Your task to perform on an android device: Search for flights from Sydney to Zurich Image 0: 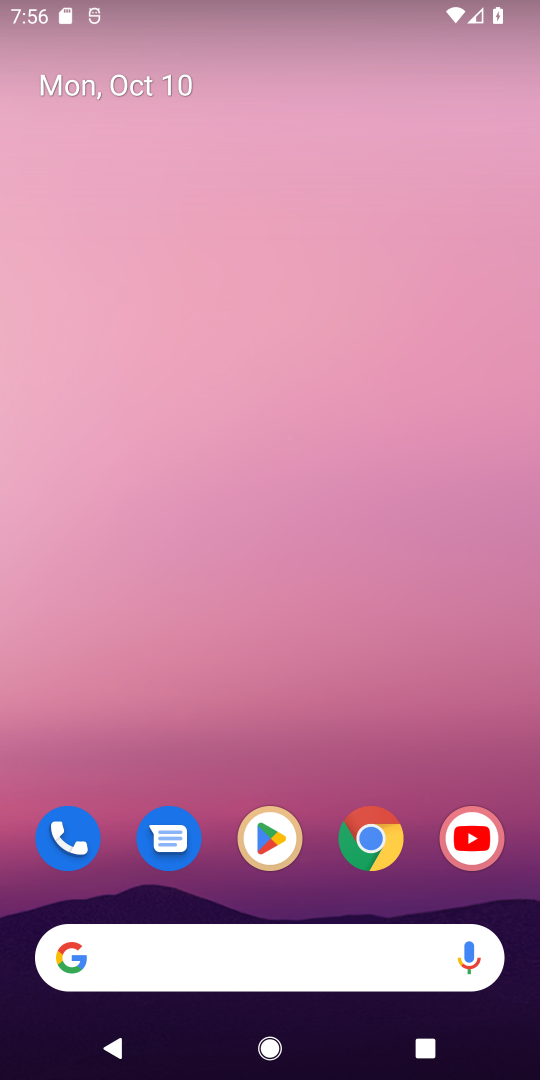
Step 0: click (366, 835)
Your task to perform on an android device: Search for flights from Sydney to Zurich Image 1: 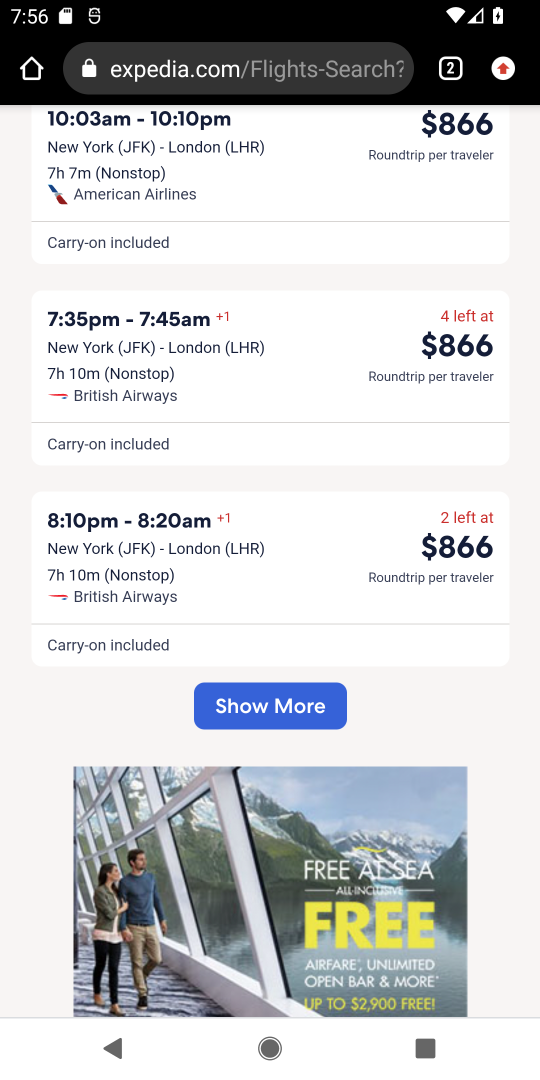
Step 1: click (219, 54)
Your task to perform on an android device: Search for flights from Sydney to Zurich Image 2: 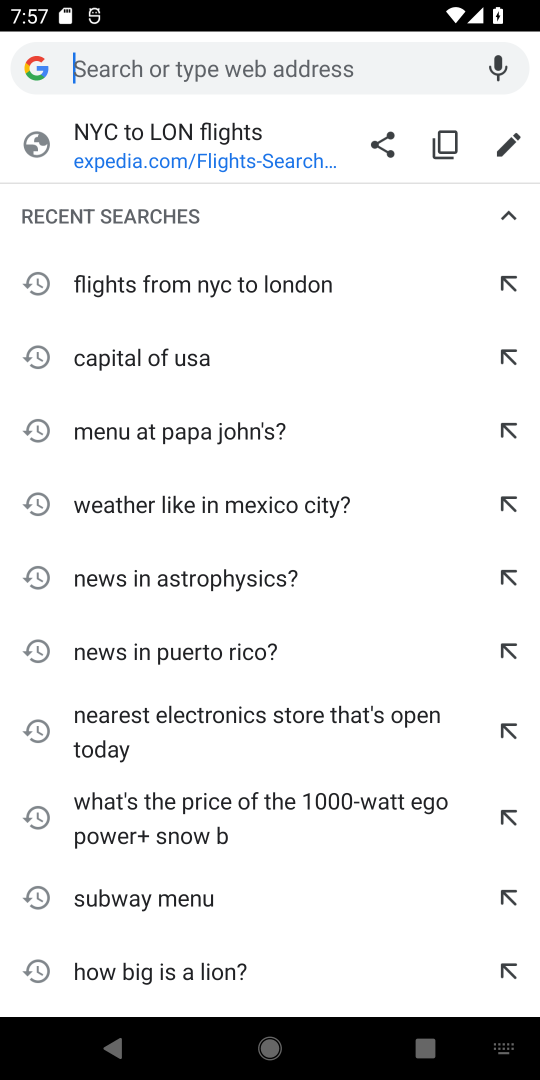
Step 2: type "flights from Sydney to Zurich"
Your task to perform on an android device: Search for flights from Sydney to Zurich Image 3: 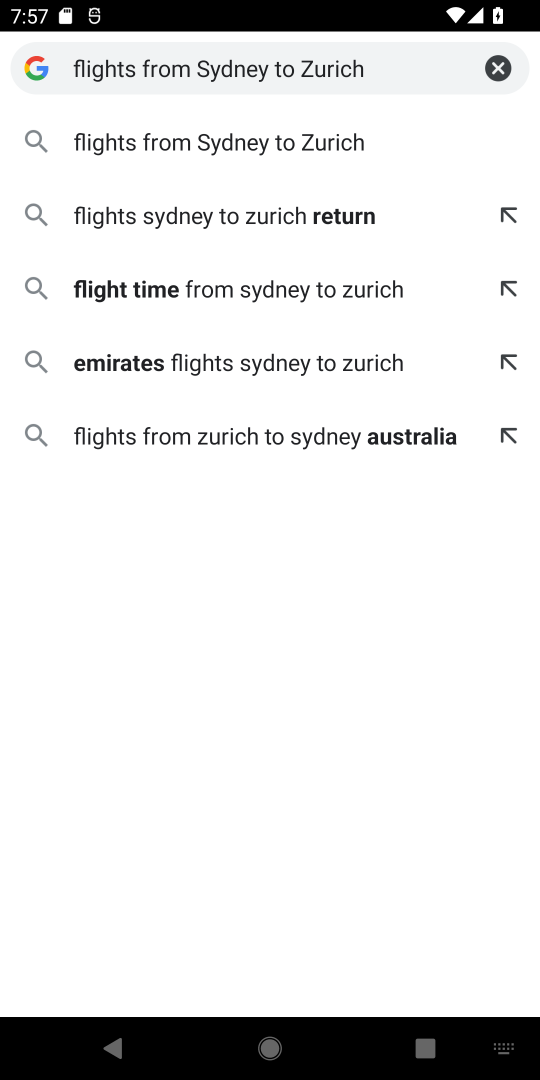
Step 3: click (151, 136)
Your task to perform on an android device: Search for flights from Sydney to Zurich Image 4: 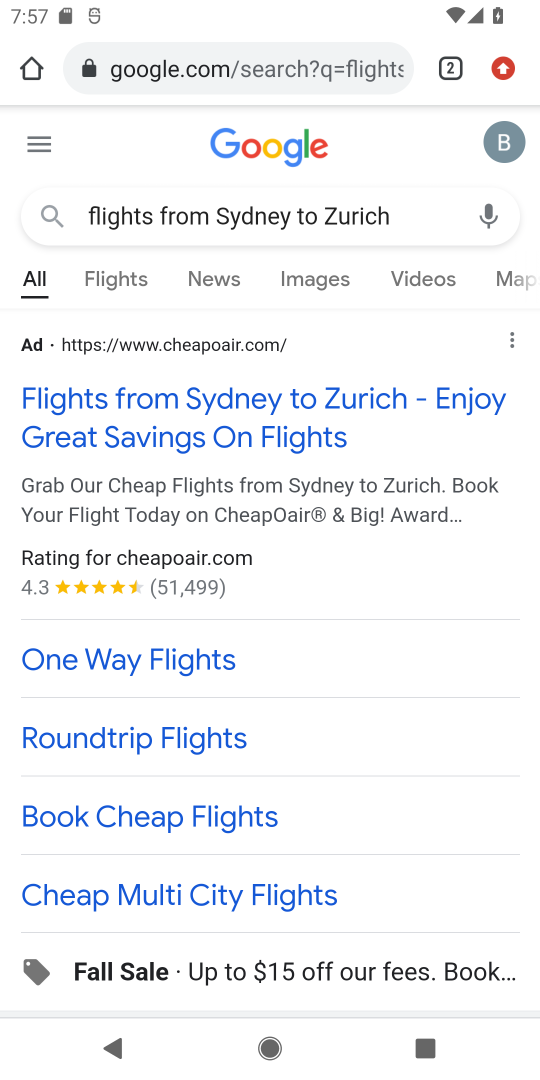
Step 4: click (106, 408)
Your task to perform on an android device: Search for flights from Sydney to Zurich Image 5: 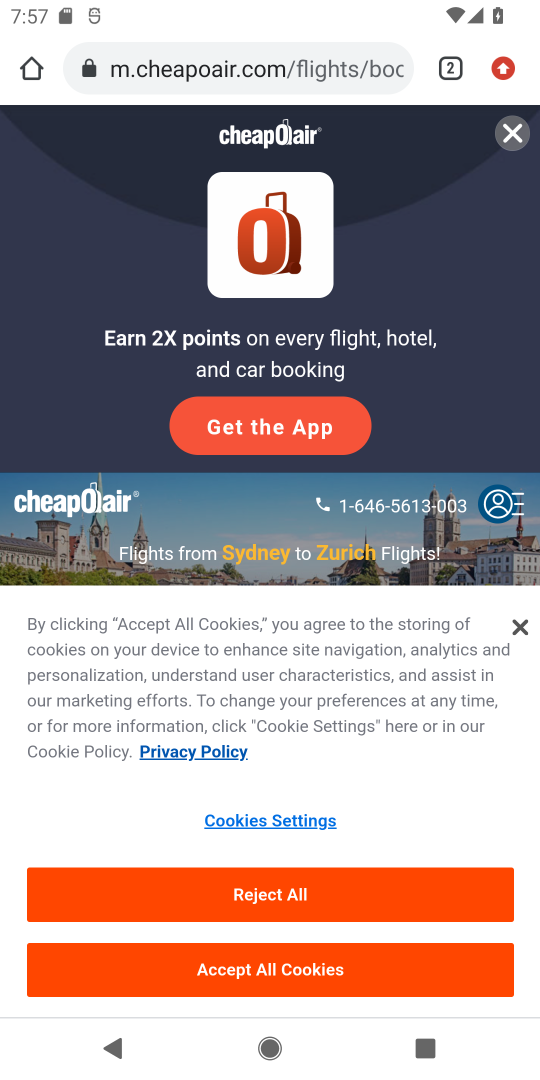
Step 5: click (261, 966)
Your task to perform on an android device: Search for flights from Sydney to Zurich Image 6: 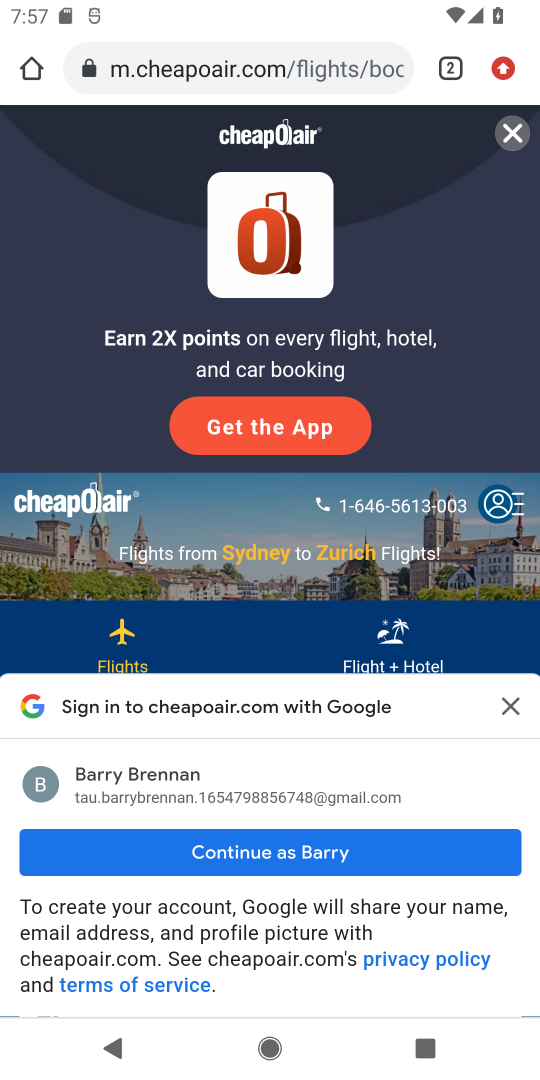
Step 6: click (504, 698)
Your task to perform on an android device: Search for flights from Sydney to Zurich Image 7: 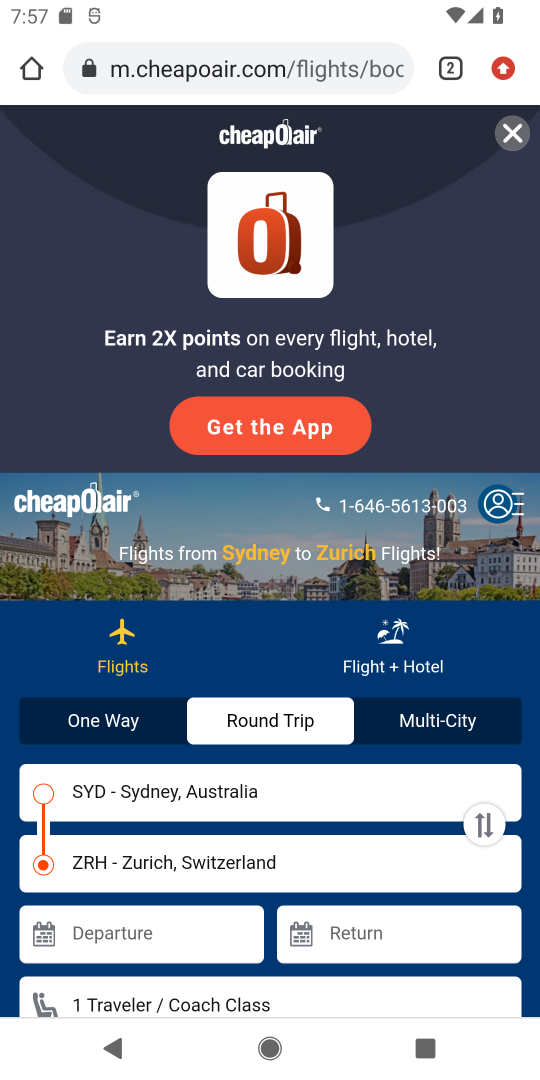
Step 7: drag from (305, 827) to (308, 264)
Your task to perform on an android device: Search for flights from Sydney to Zurich Image 8: 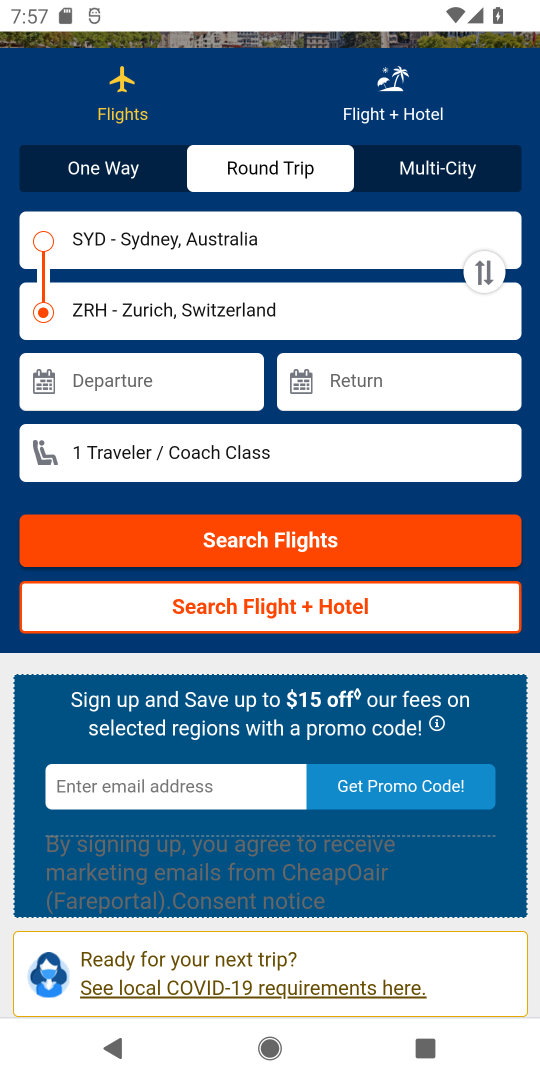
Step 8: click (254, 548)
Your task to perform on an android device: Search for flights from Sydney to Zurich Image 9: 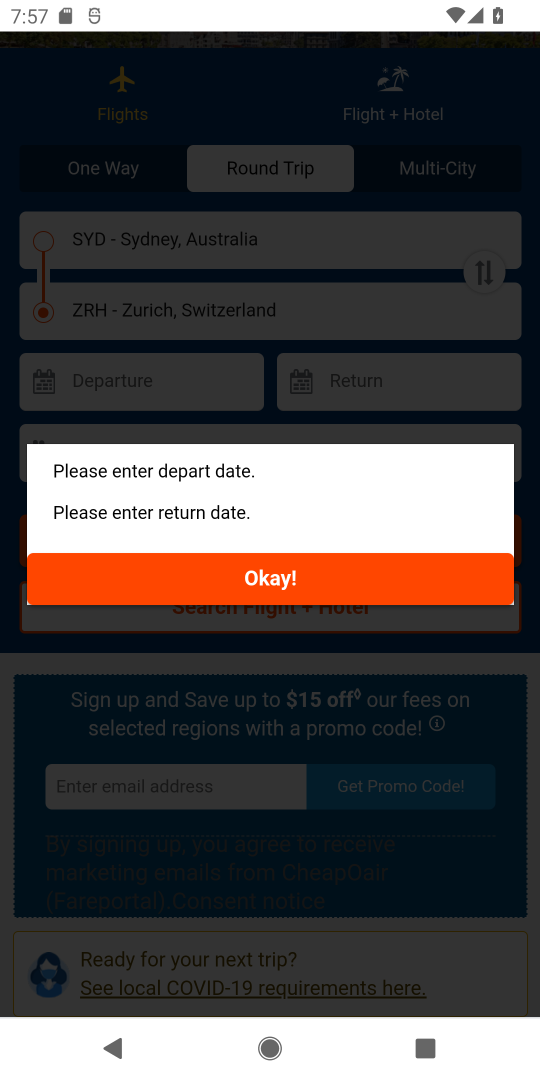
Step 9: click (262, 580)
Your task to perform on an android device: Search for flights from Sydney to Zurich Image 10: 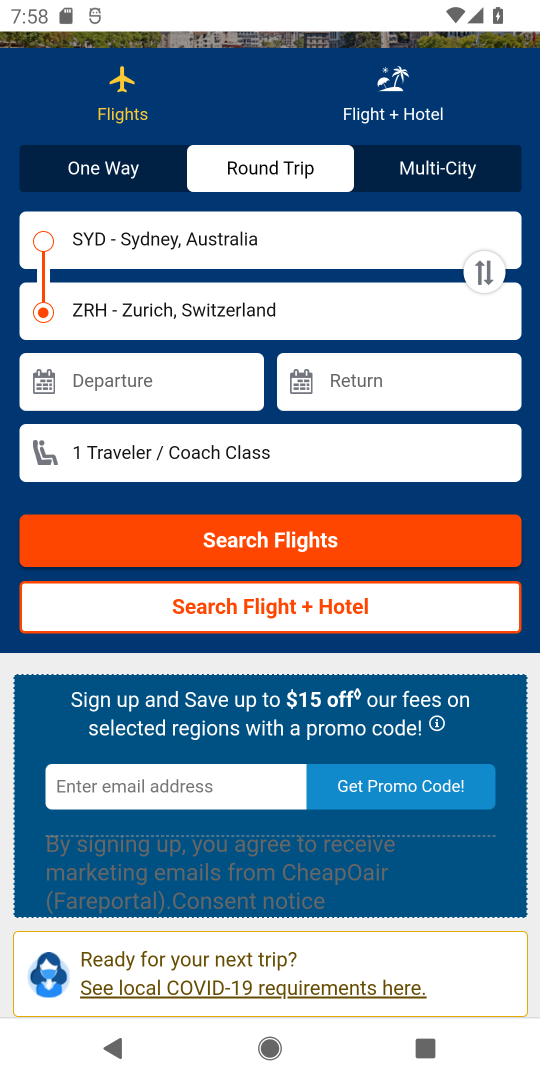
Step 10: click (259, 535)
Your task to perform on an android device: Search for flights from Sydney to Zurich Image 11: 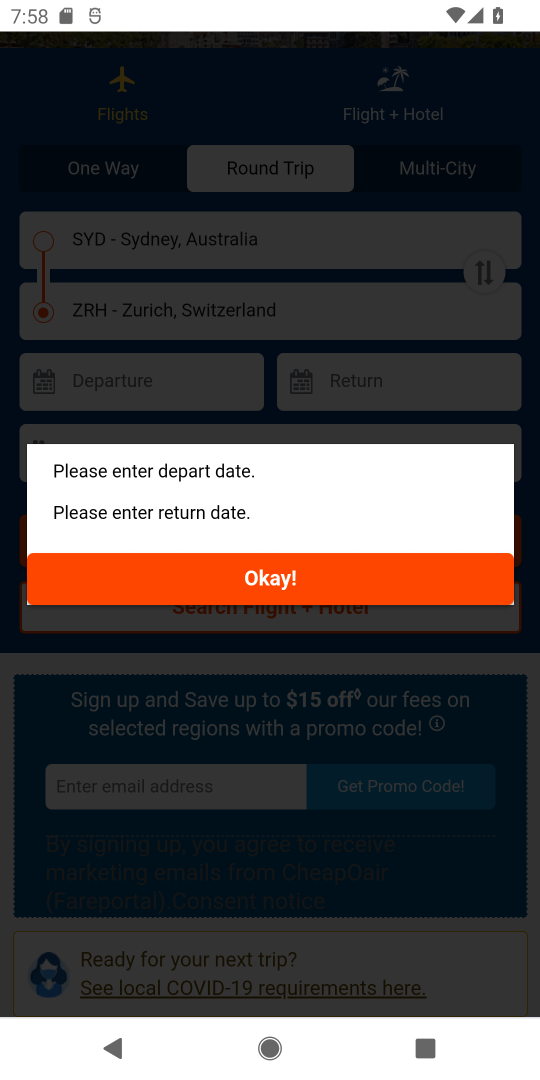
Step 11: click (239, 569)
Your task to perform on an android device: Search for flights from Sydney to Zurich Image 12: 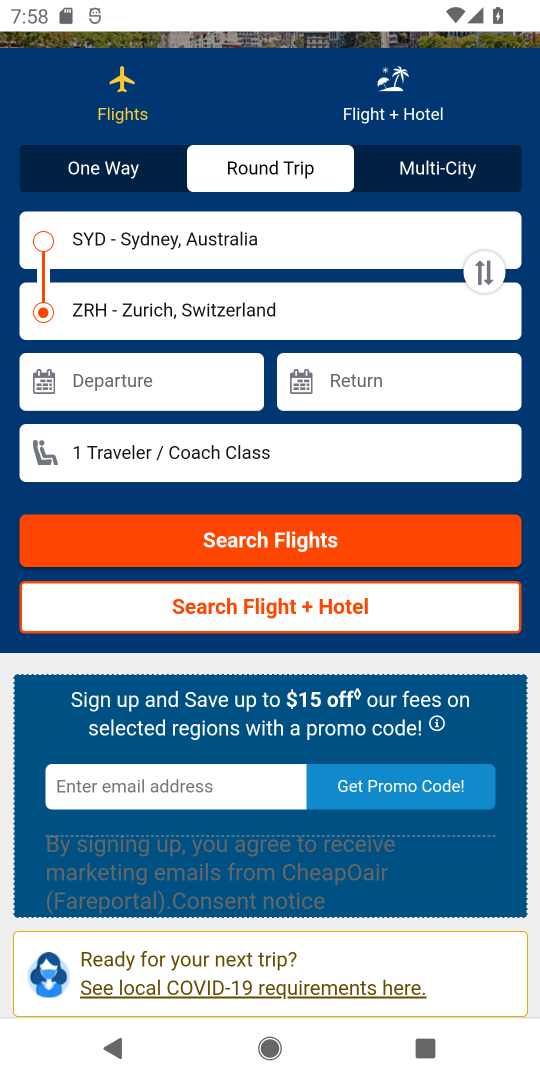
Step 12: click (122, 384)
Your task to perform on an android device: Search for flights from Sydney to Zurich Image 13: 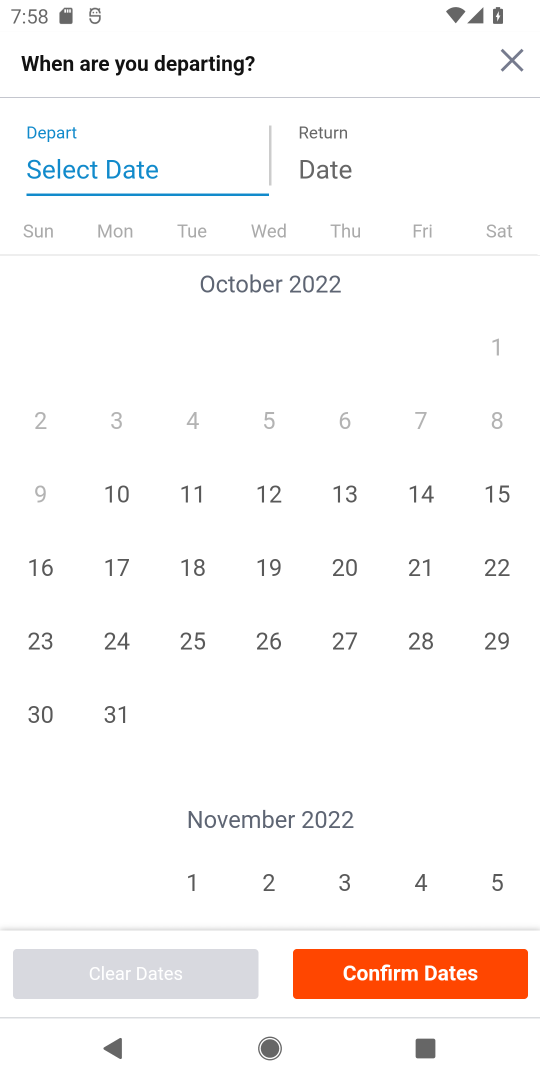
Step 13: click (183, 637)
Your task to perform on an android device: Search for flights from Sydney to Zurich Image 14: 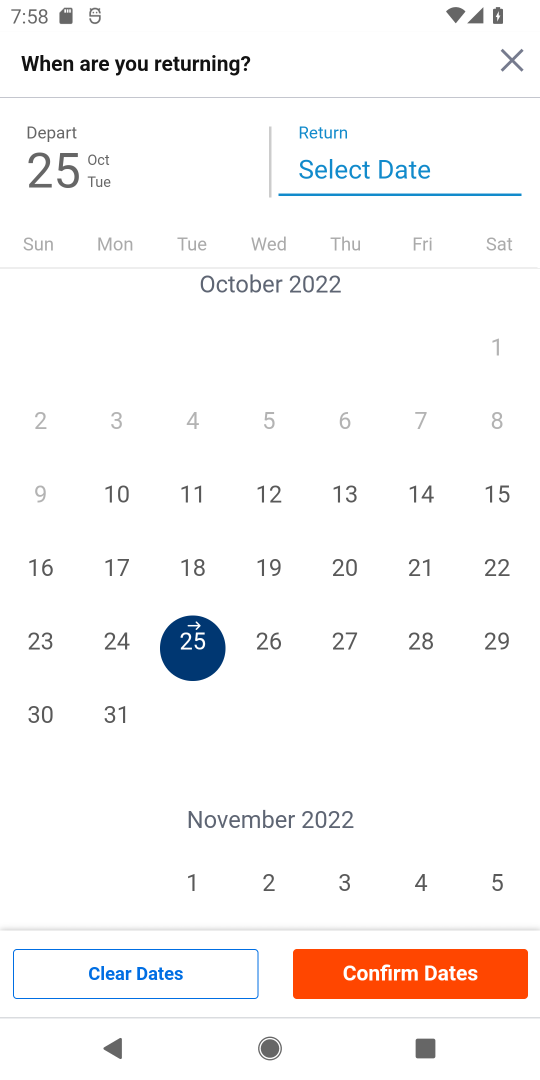
Step 14: click (421, 650)
Your task to perform on an android device: Search for flights from Sydney to Zurich Image 15: 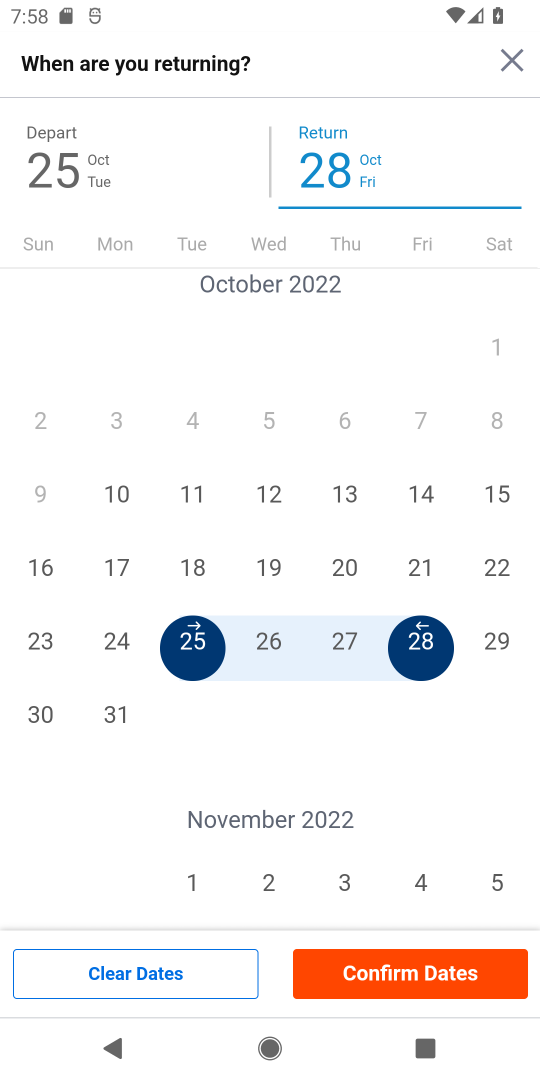
Step 15: click (379, 971)
Your task to perform on an android device: Search for flights from Sydney to Zurich Image 16: 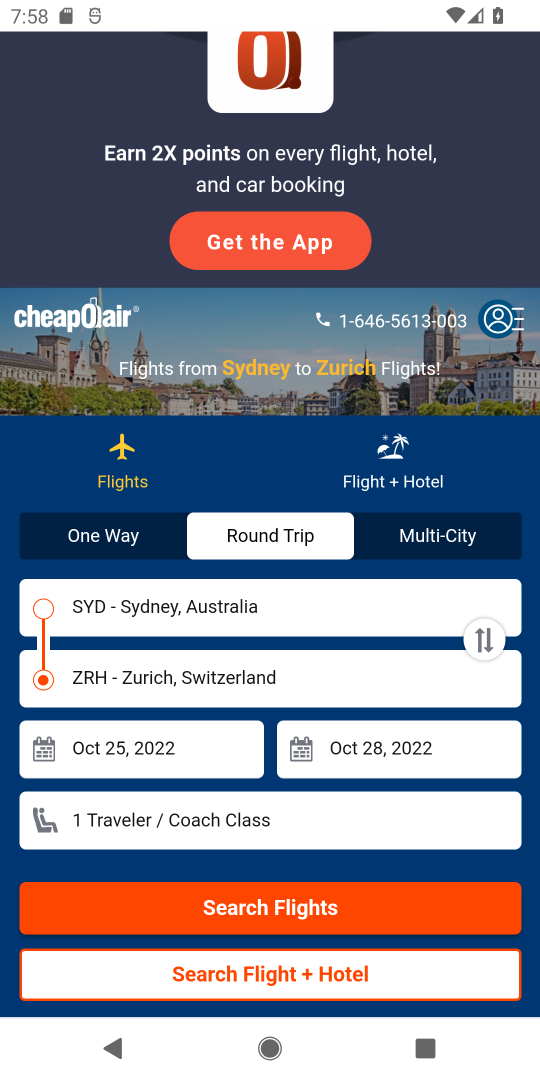
Step 16: click (247, 914)
Your task to perform on an android device: Search for flights from Sydney to Zurich Image 17: 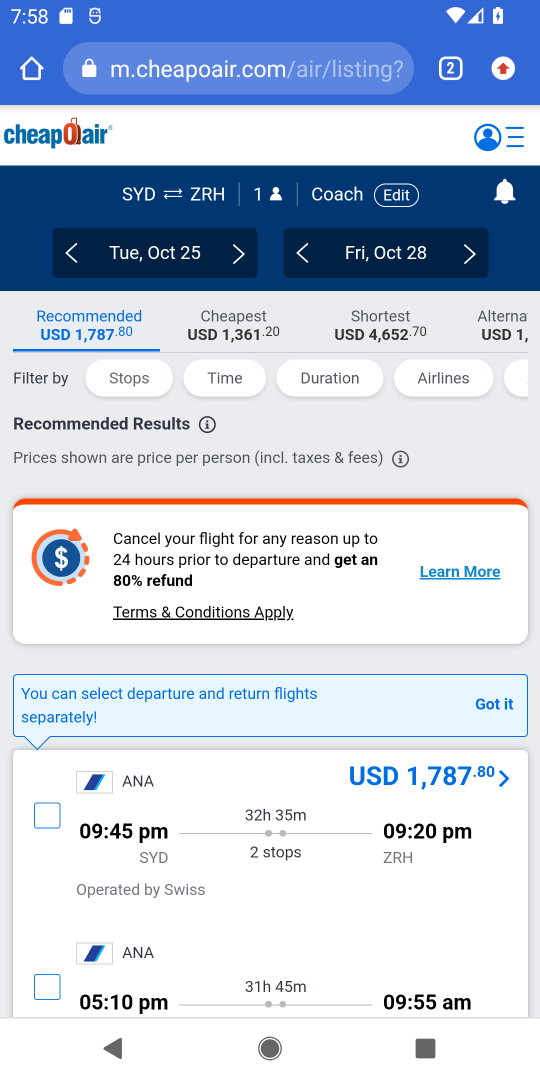
Step 17: task complete